Your task to perform on an android device: open device folders in google photos Image 0: 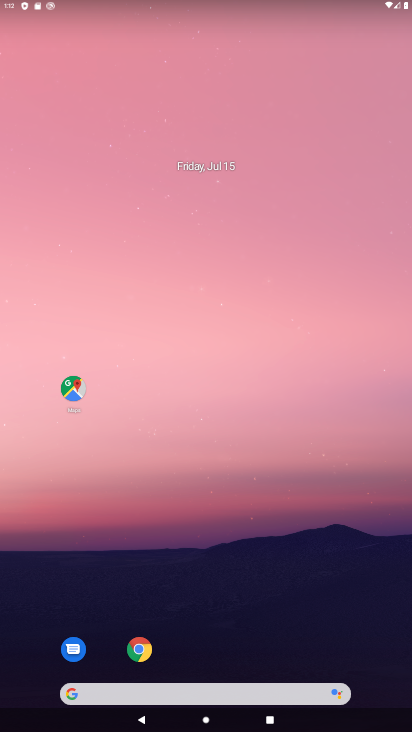
Step 0: drag from (319, 698) to (356, 0)
Your task to perform on an android device: open device folders in google photos Image 1: 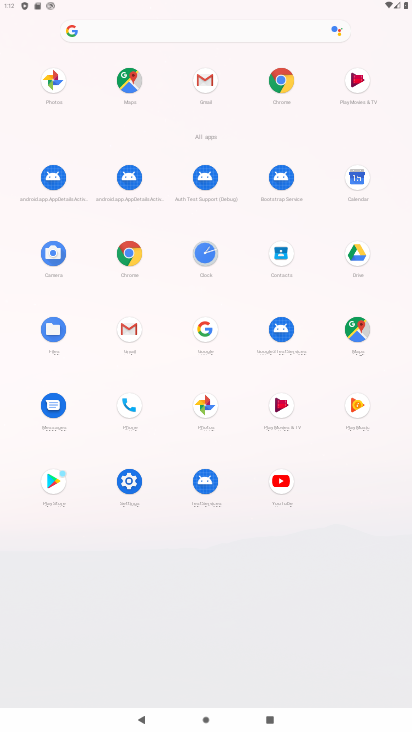
Step 1: click (213, 401)
Your task to perform on an android device: open device folders in google photos Image 2: 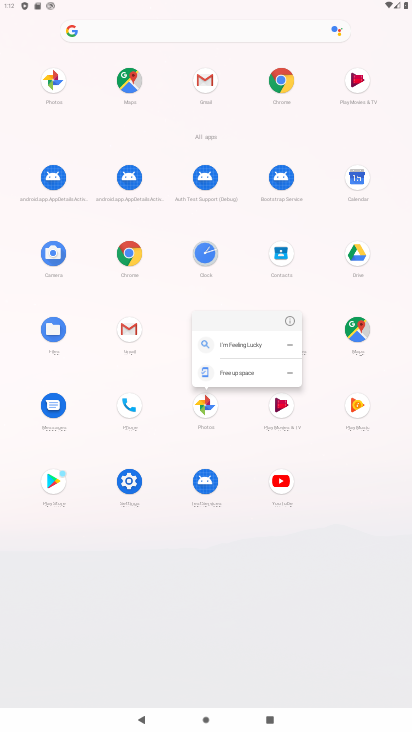
Step 2: click (205, 407)
Your task to perform on an android device: open device folders in google photos Image 3: 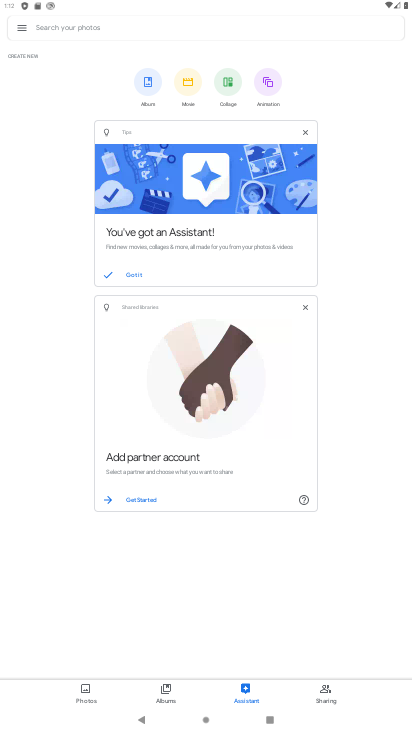
Step 3: click (20, 27)
Your task to perform on an android device: open device folders in google photos Image 4: 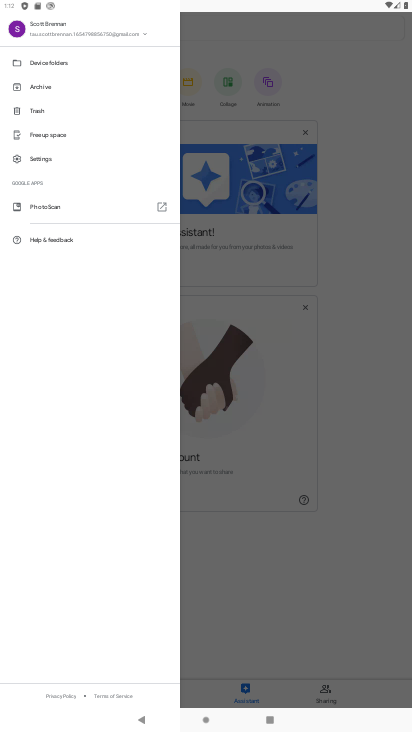
Step 4: click (44, 66)
Your task to perform on an android device: open device folders in google photos Image 5: 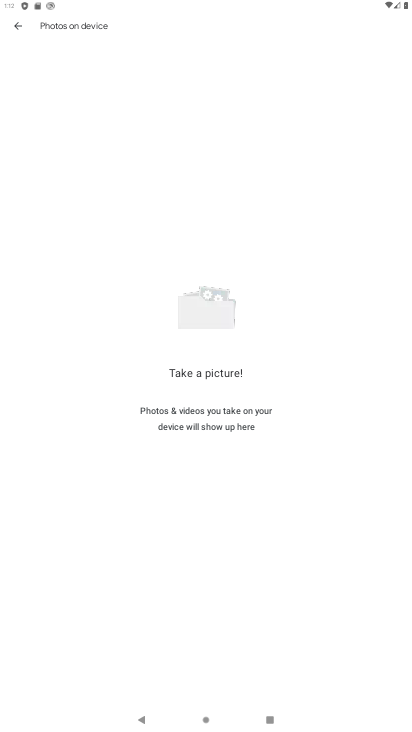
Step 5: task complete